Your task to perform on an android device: Open CNN.com Image 0: 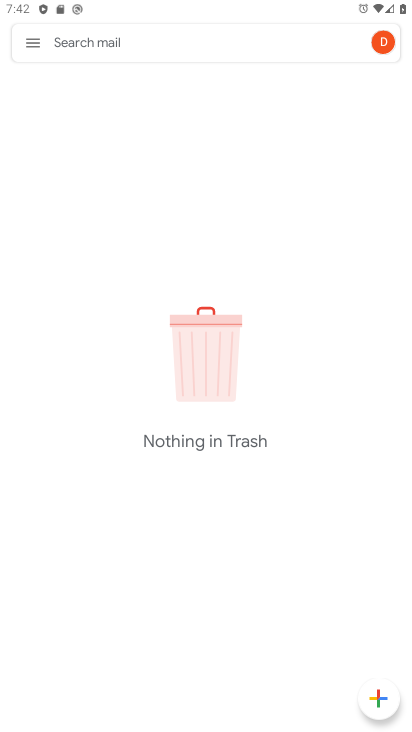
Step 0: press home button
Your task to perform on an android device: Open CNN.com Image 1: 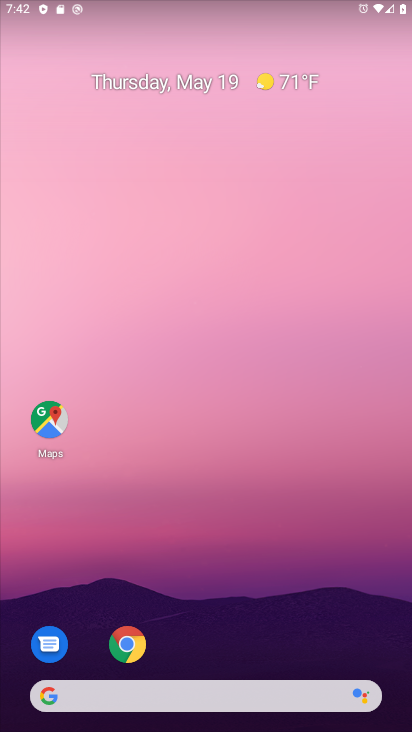
Step 1: drag from (162, 603) to (207, 287)
Your task to perform on an android device: Open CNN.com Image 2: 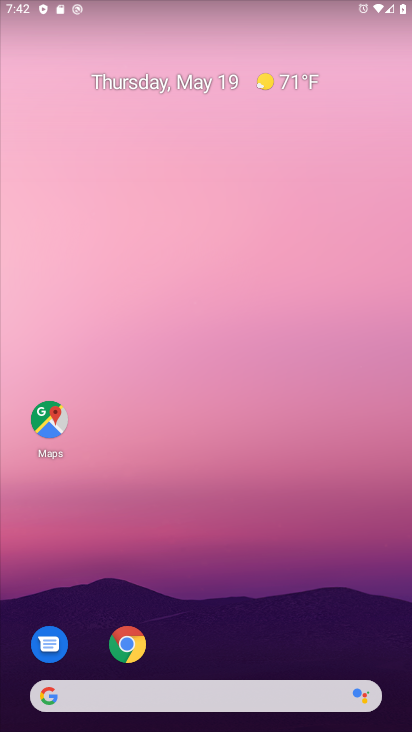
Step 2: drag from (164, 669) to (163, 157)
Your task to perform on an android device: Open CNN.com Image 3: 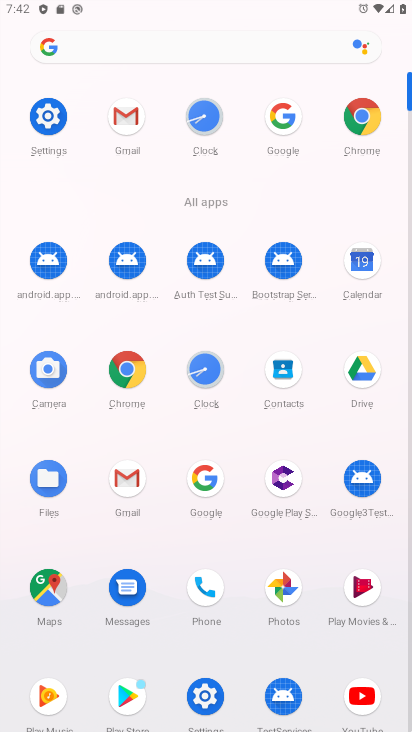
Step 3: click (211, 481)
Your task to perform on an android device: Open CNN.com Image 4: 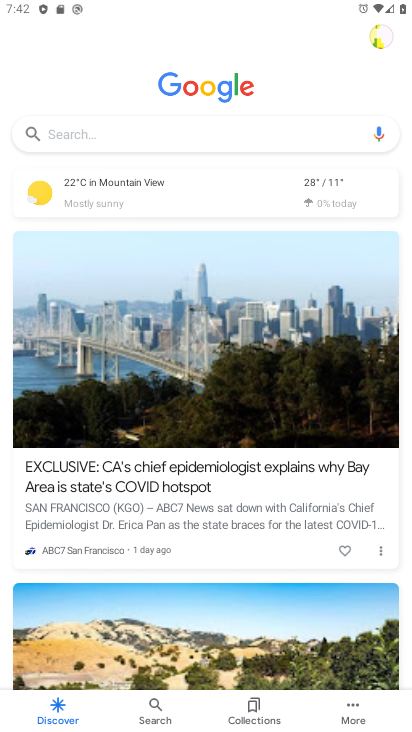
Step 4: click (152, 134)
Your task to perform on an android device: Open CNN.com Image 5: 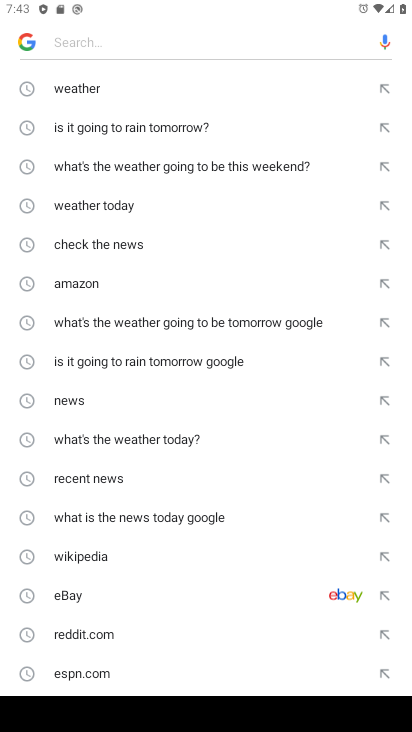
Step 5: drag from (89, 671) to (111, 317)
Your task to perform on an android device: Open CNN.com Image 6: 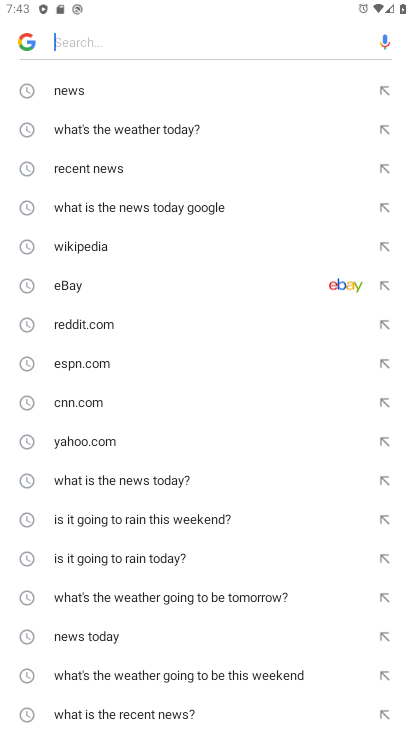
Step 6: drag from (102, 700) to (126, 313)
Your task to perform on an android device: Open CNN.com Image 7: 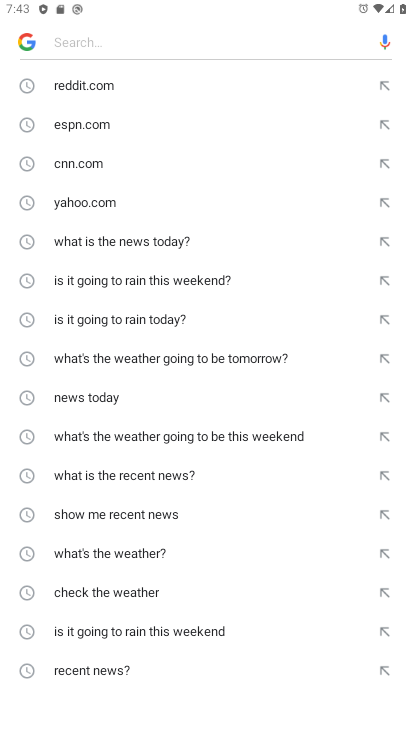
Step 7: click (94, 162)
Your task to perform on an android device: Open CNN.com Image 8: 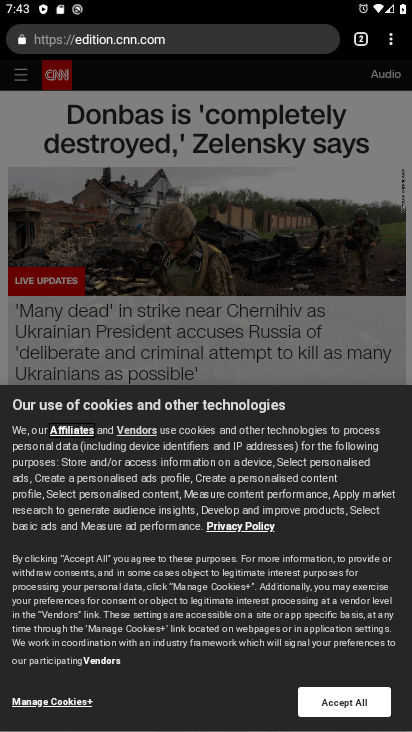
Step 8: task complete